Your task to perform on an android device: Open my contact list Image 0: 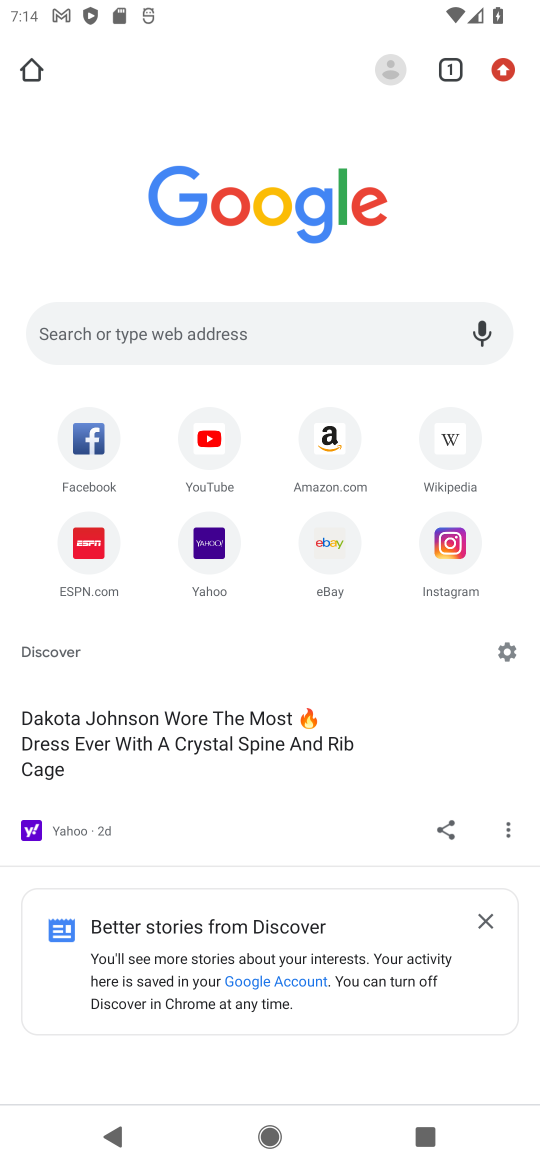
Step 0: press home button
Your task to perform on an android device: Open my contact list Image 1: 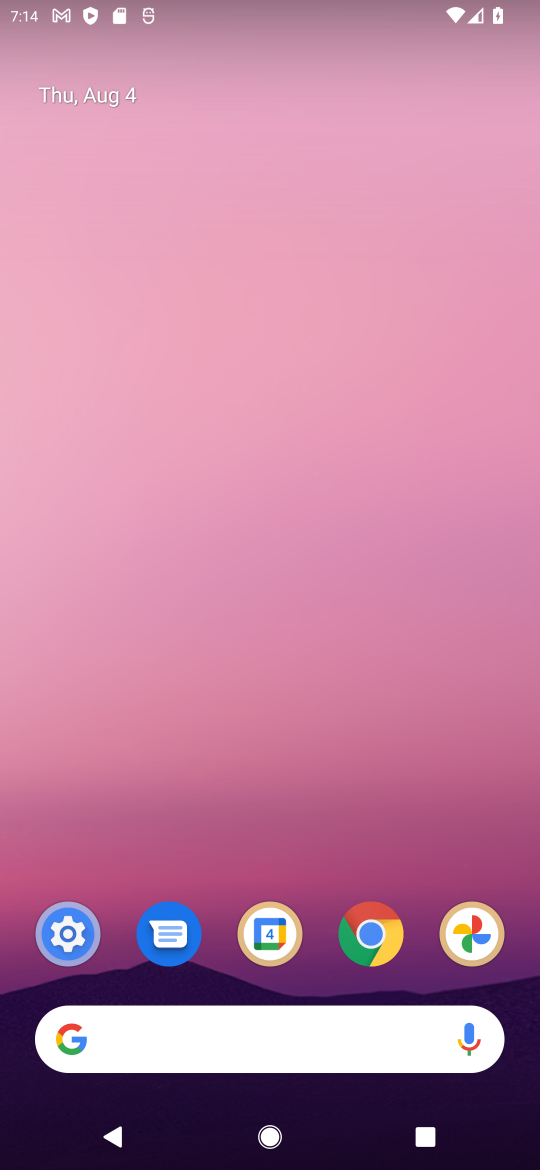
Step 1: drag from (253, 1031) to (186, 290)
Your task to perform on an android device: Open my contact list Image 2: 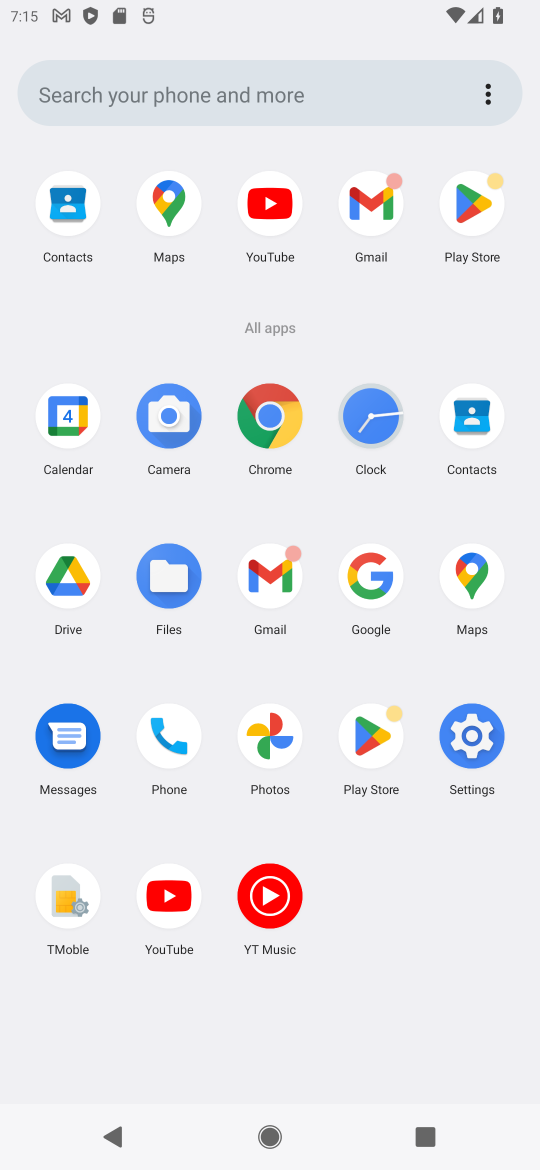
Step 2: click (484, 413)
Your task to perform on an android device: Open my contact list Image 3: 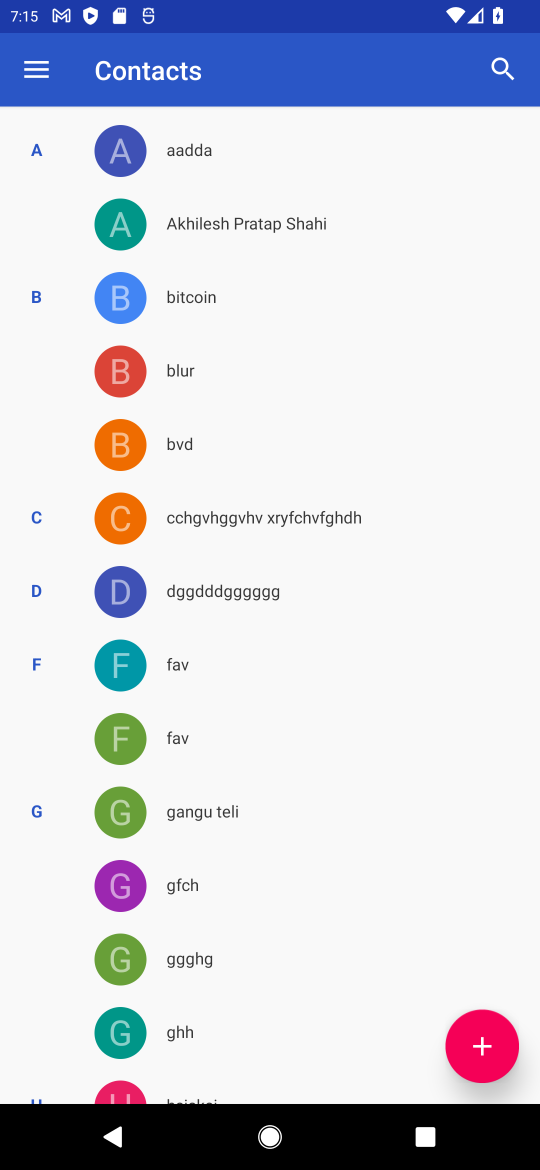
Step 3: task complete